Your task to perform on an android device: all mails in gmail Image 0: 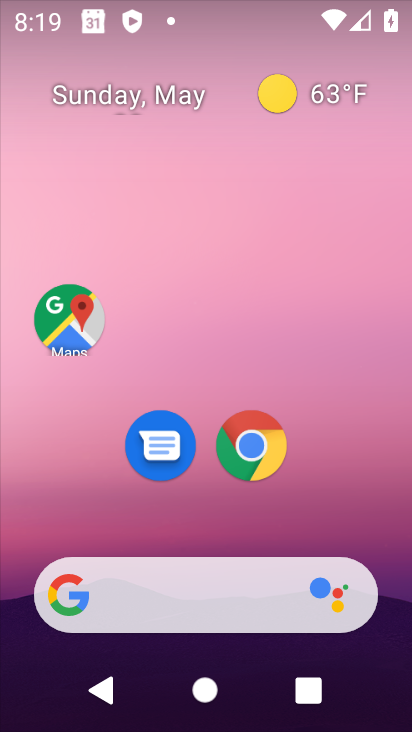
Step 0: drag from (367, 518) to (360, 169)
Your task to perform on an android device: all mails in gmail Image 1: 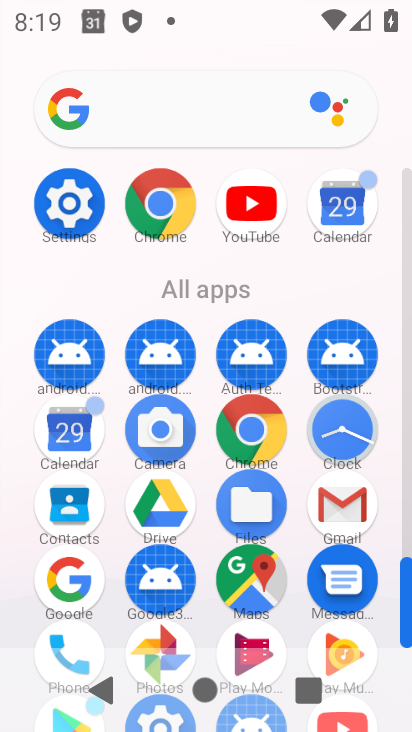
Step 1: click (352, 509)
Your task to perform on an android device: all mails in gmail Image 2: 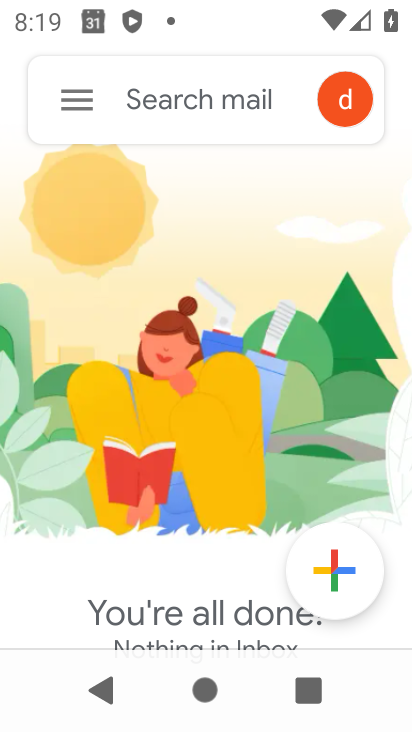
Step 2: click (83, 98)
Your task to perform on an android device: all mails in gmail Image 3: 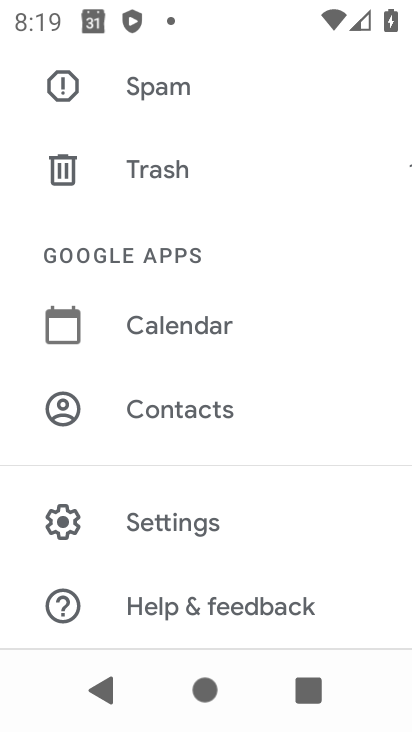
Step 3: drag from (336, 298) to (330, 373)
Your task to perform on an android device: all mails in gmail Image 4: 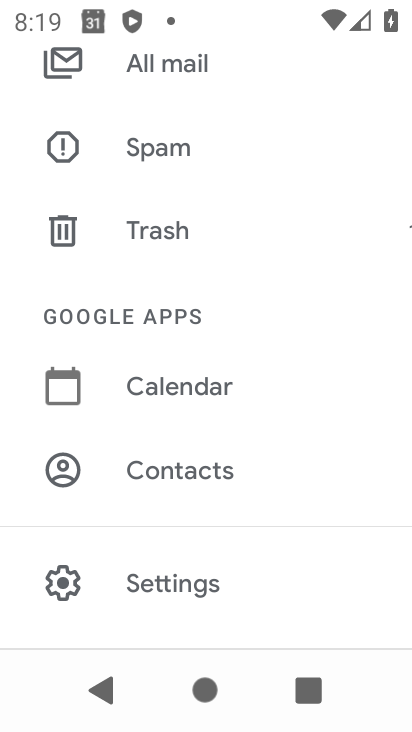
Step 4: drag from (349, 264) to (350, 352)
Your task to perform on an android device: all mails in gmail Image 5: 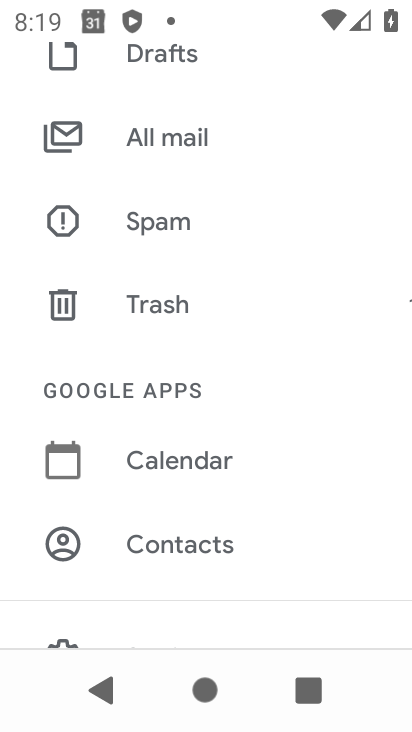
Step 5: drag from (335, 238) to (332, 336)
Your task to perform on an android device: all mails in gmail Image 6: 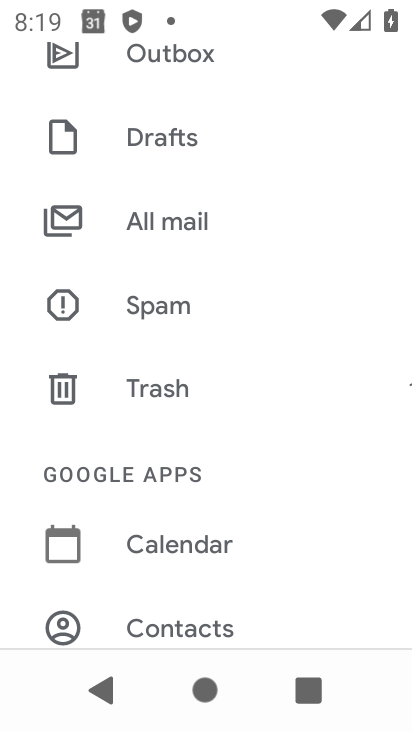
Step 6: drag from (335, 191) to (332, 303)
Your task to perform on an android device: all mails in gmail Image 7: 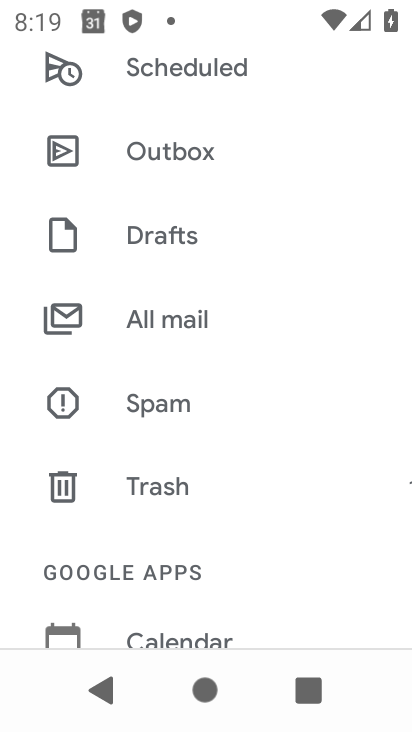
Step 7: drag from (349, 152) to (331, 257)
Your task to perform on an android device: all mails in gmail Image 8: 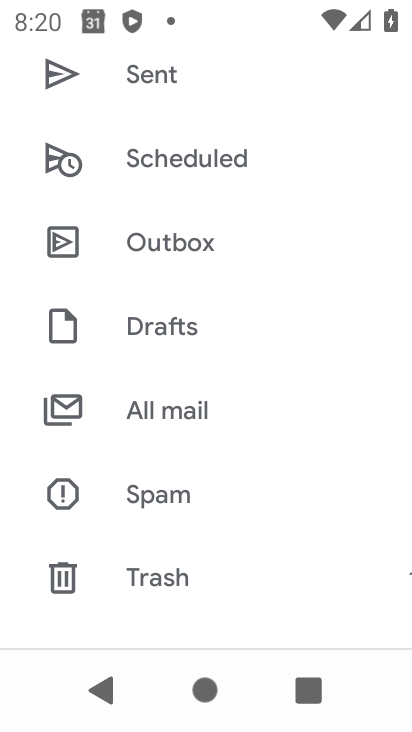
Step 8: drag from (332, 141) to (329, 244)
Your task to perform on an android device: all mails in gmail Image 9: 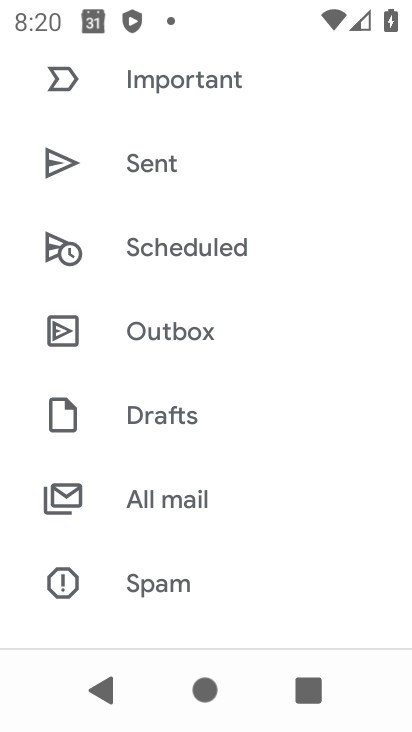
Step 9: drag from (330, 165) to (335, 244)
Your task to perform on an android device: all mails in gmail Image 10: 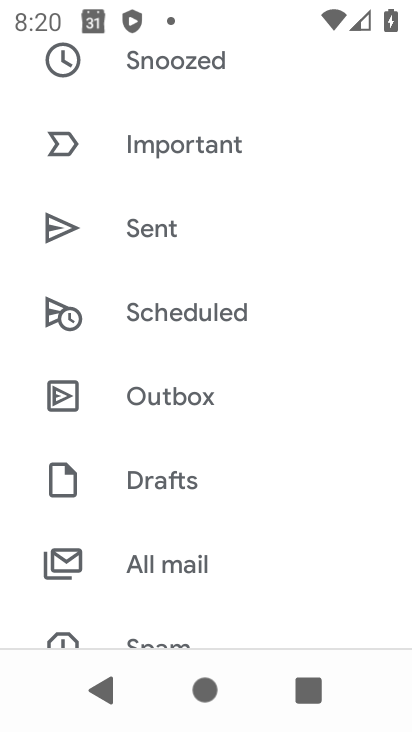
Step 10: click (221, 555)
Your task to perform on an android device: all mails in gmail Image 11: 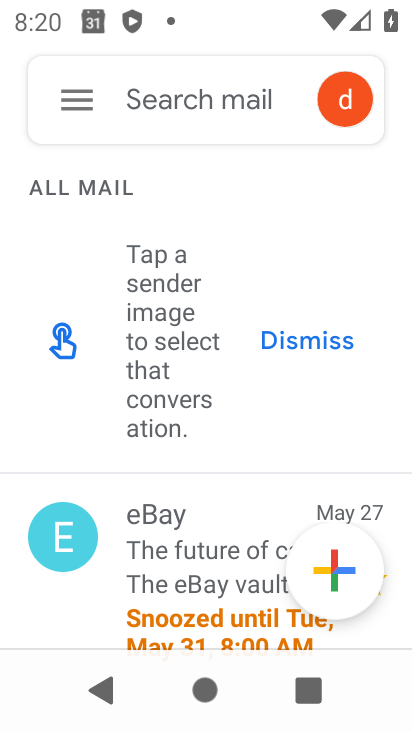
Step 11: task complete